Your task to perform on an android device: turn off picture-in-picture Image 0: 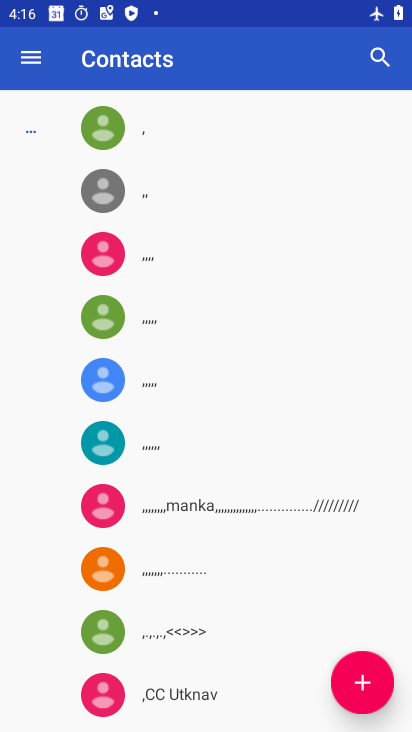
Step 0: press home button
Your task to perform on an android device: turn off picture-in-picture Image 1: 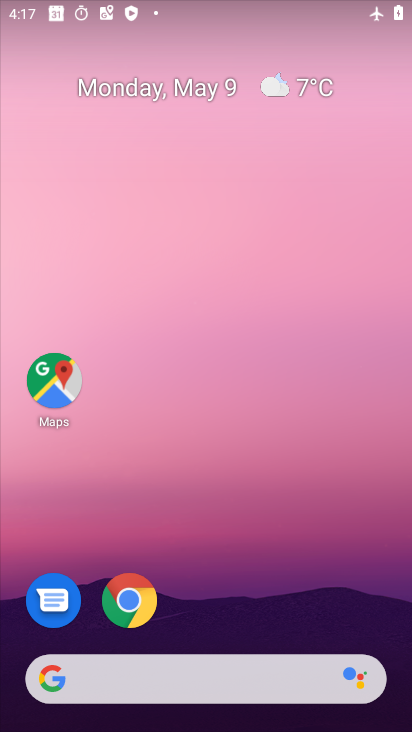
Step 1: click (142, 604)
Your task to perform on an android device: turn off picture-in-picture Image 2: 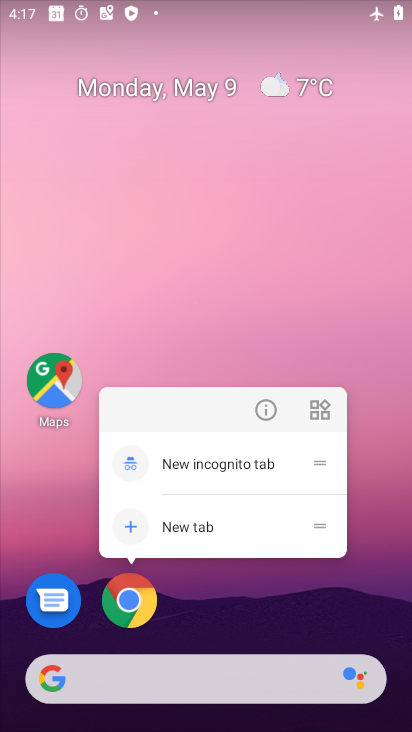
Step 2: click (264, 404)
Your task to perform on an android device: turn off picture-in-picture Image 3: 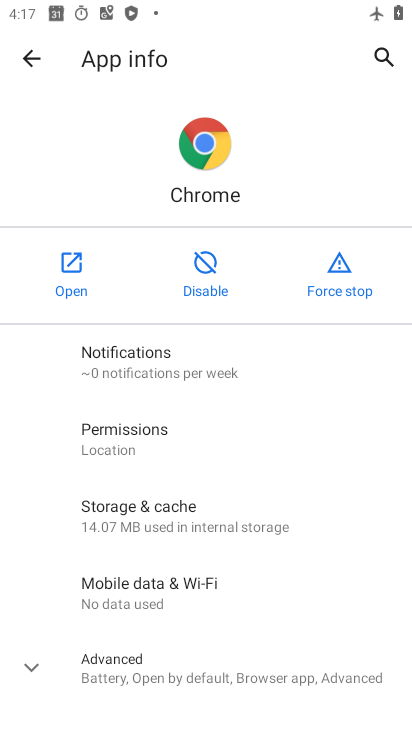
Step 3: drag from (197, 611) to (215, 172)
Your task to perform on an android device: turn off picture-in-picture Image 4: 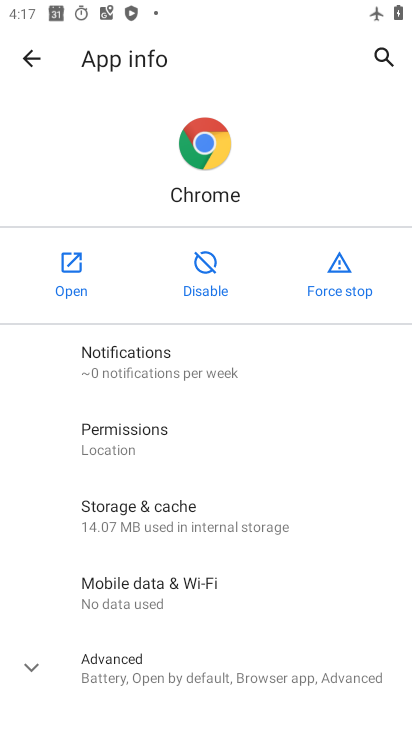
Step 4: click (181, 681)
Your task to perform on an android device: turn off picture-in-picture Image 5: 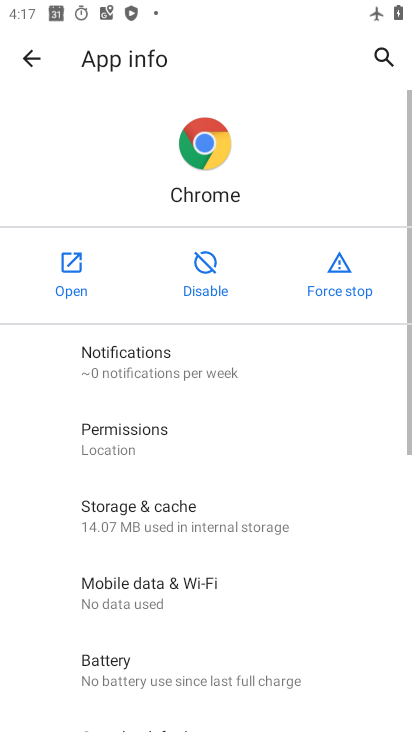
Step 5: drag from (224, 636) to (242, 171)
Your task to perform on an android device: turn off picture-in-picture Image 6: 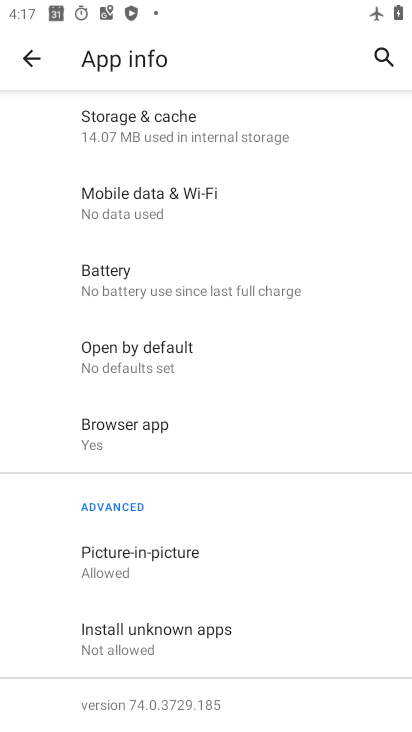
Step 6: click (143, 564)
Your task to perform on an android device: turn off picture-in-picture Image 7: 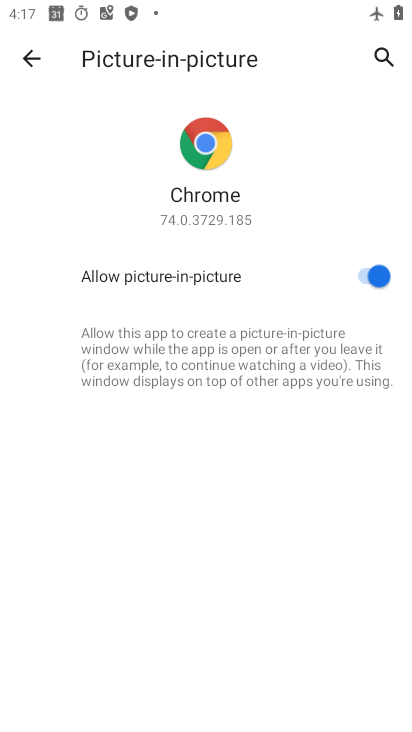
Step 7: click (359, 260)
Your task to perform on an android device: turn off picture-in-picture Image 8: 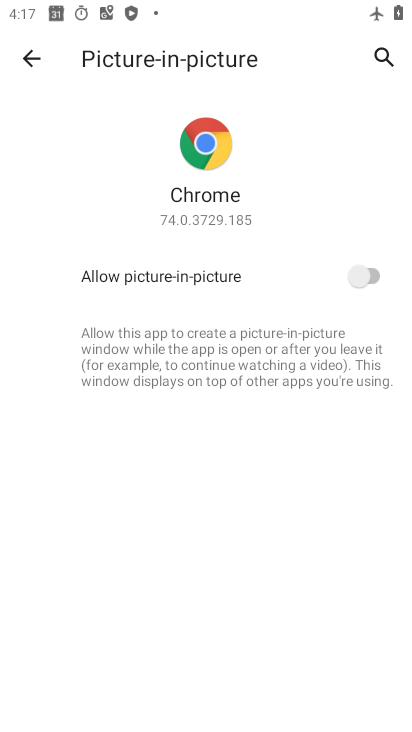
Step 8: task complete